Your task to perform on an android device: Open internet settings Image 0: 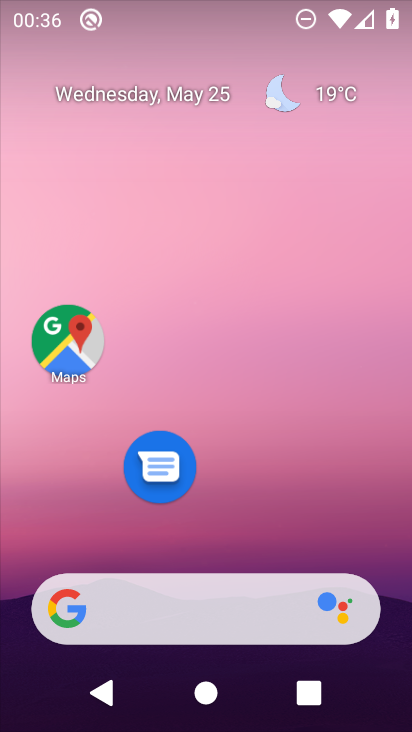
Step 0: drag from (202, 541) to (355, 96)
Your task to perform on an android device: Open internet settings Image 1: 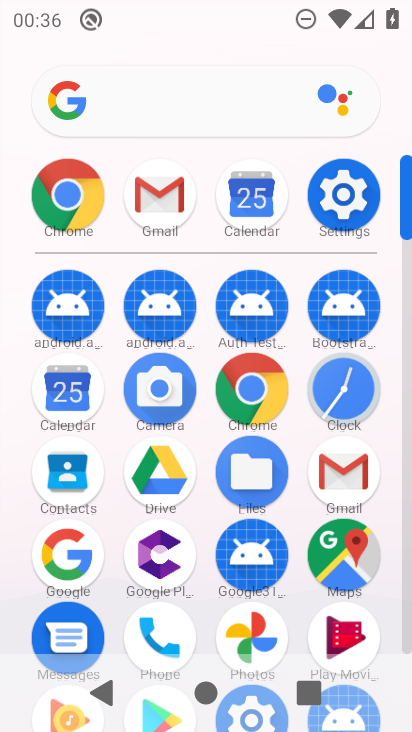
Step 1: click (337, 213)
Your task to perform on an android device: Open internet settings Image 2: 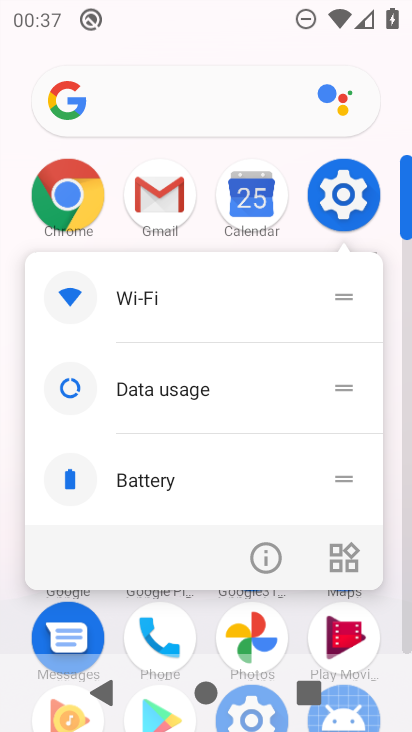
Step 2: click (281, 549)
Your task to perform on an android device: Open internet settings Image 3: 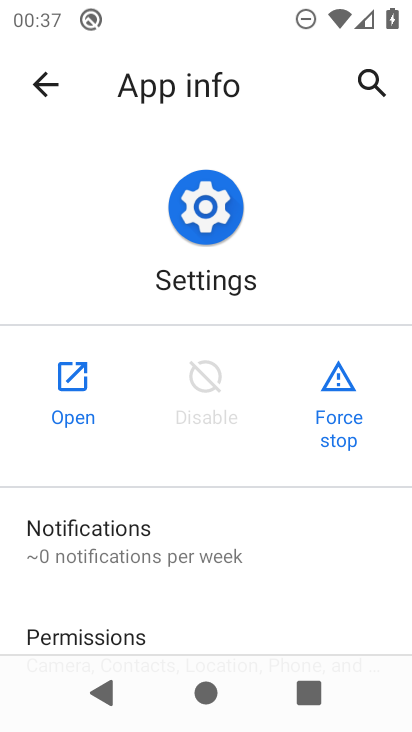
Step 3: click (77, 394)
Your task to perform on an android device: Open internet settings Image 4: 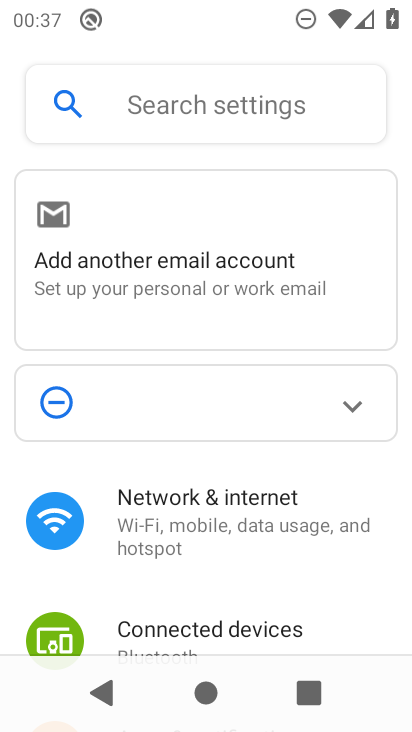
Step 4: click (217, 523)
Your task to perform on an android device: Open internet settings Image 5: 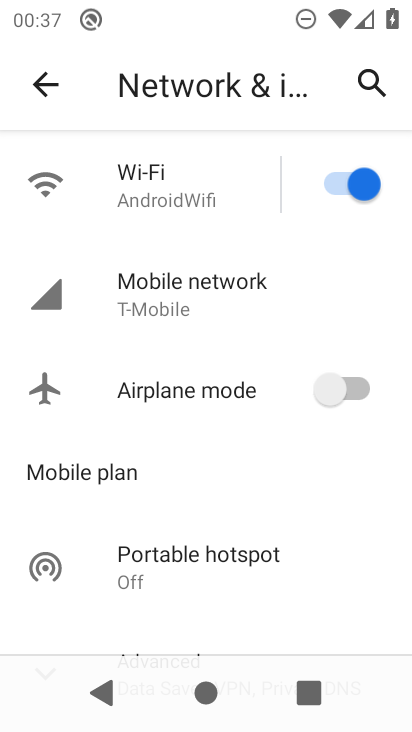
Step 5: task complete